Your task to perform on an android device: turn notification dots on Image 0: 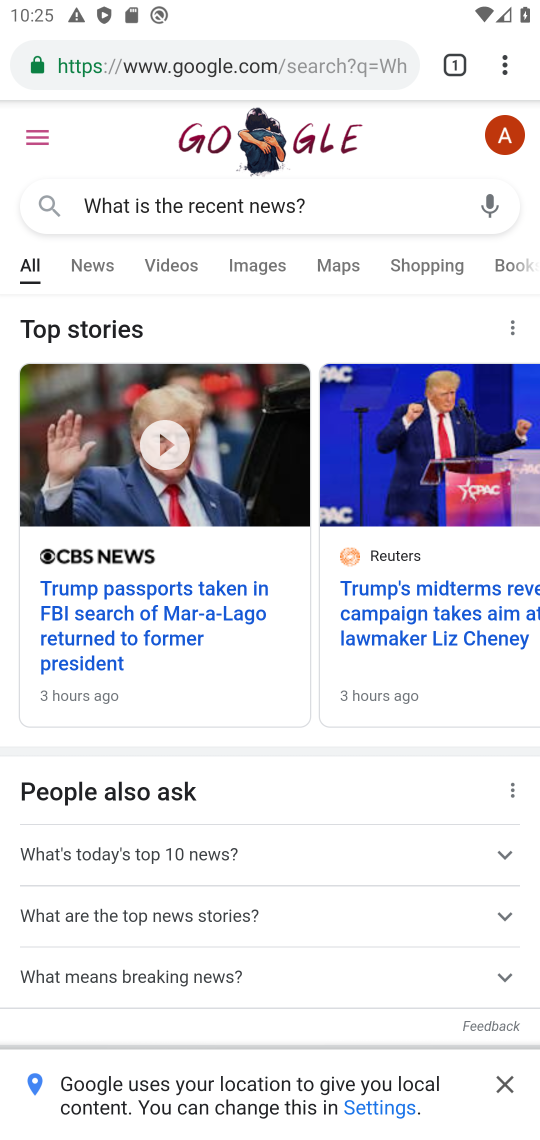
Step 0: task complete